Your task to perform on an android device: read, delete, or share a saved page in the chrome app Image 0: 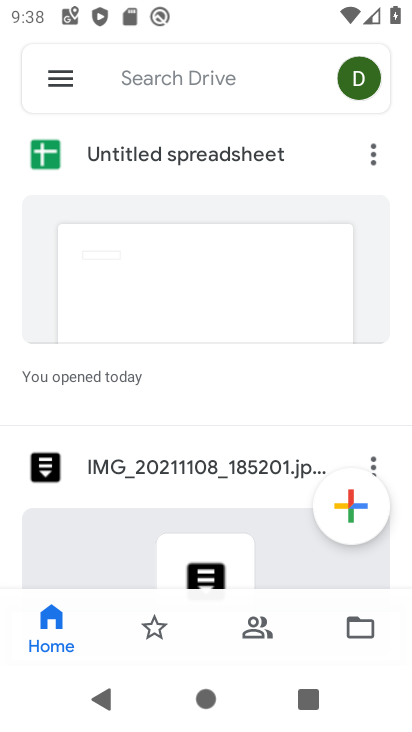
Step 0: press home button
Your task to perform on an android device: read, delete, or share a saved page in the chrome app Image 1: 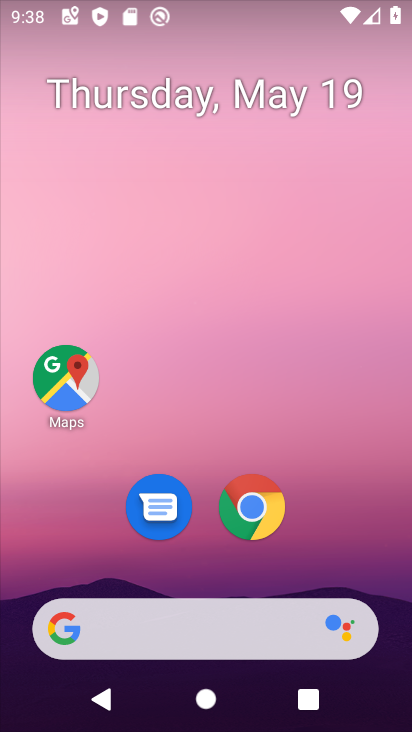
Step 1: click (247, 502)
Your task to perform on an android device: read, delete, or share a saved page in the chrome app Image 2: 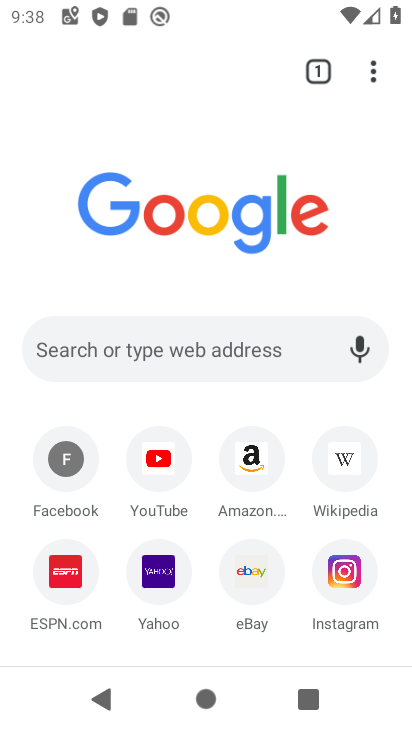
Step 2: click (374, 79)
Your task to perform on an android device: read, delete, or share a saved page in the chrome app Image 3: 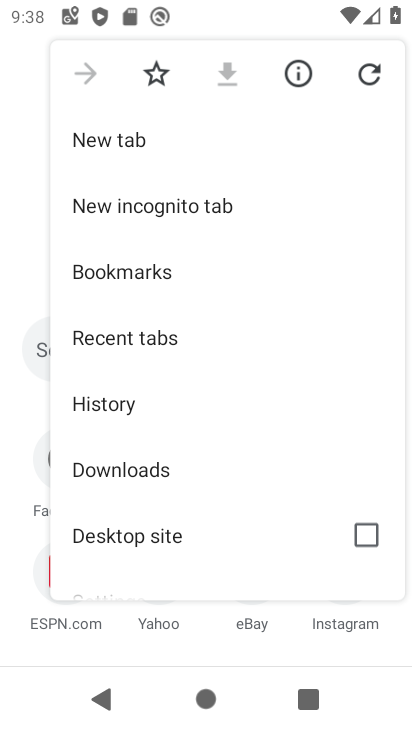
Step 3: click (126, 475)
Your task to perform on an android device: read, delete, or share a saved page in the chrome app Image 4: 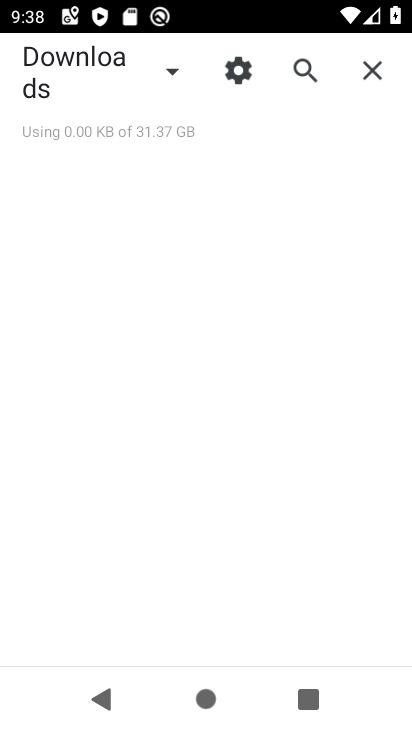
Step 4: click (167, 66)
Your task to perform on an android device: read, delete, or share a saved page in the chrome app Image 5: 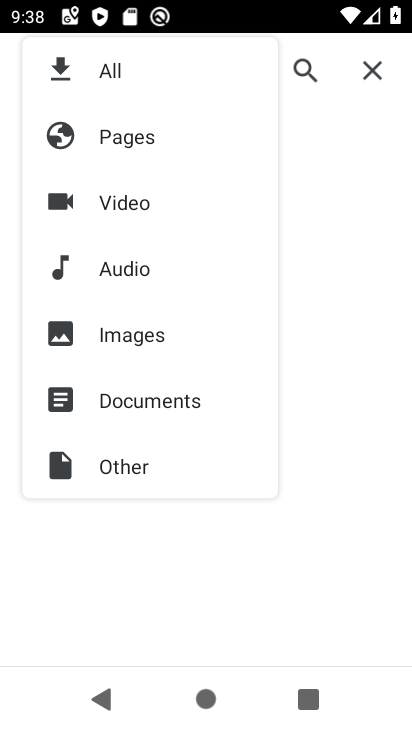
Step 5: click (109, 136)
Your task to perform on an android device: read, delete, or share a saved page in the chrome app Image 6: 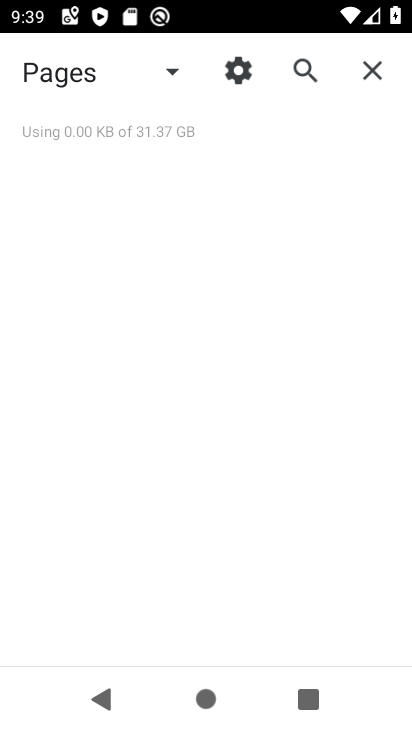
Step 6: task complete